Your task to perform on an android device: Turn on the flashlight Image 0: 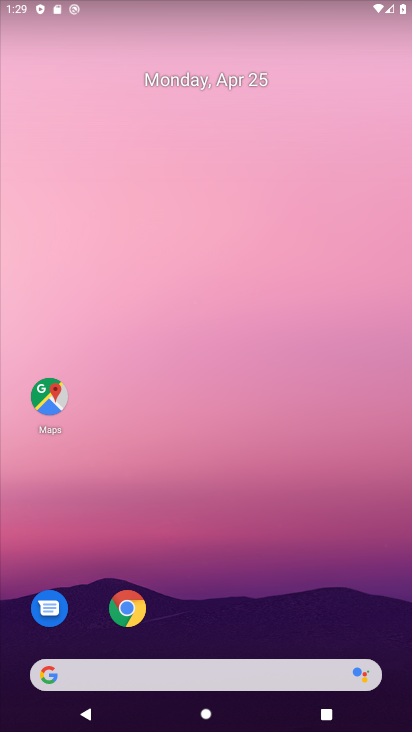
Step 0: drag from (256, 5) to (234, 434)
Your task to perform on an android device: Turn on the flashlight Image 1: 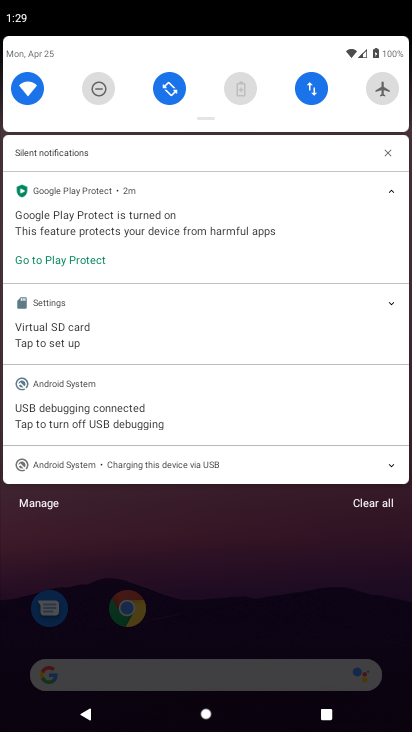
Step 1: drag from (205, 53) to (195, 384)
Your task to perform on an android device: Turn on the flashlight Image 2: 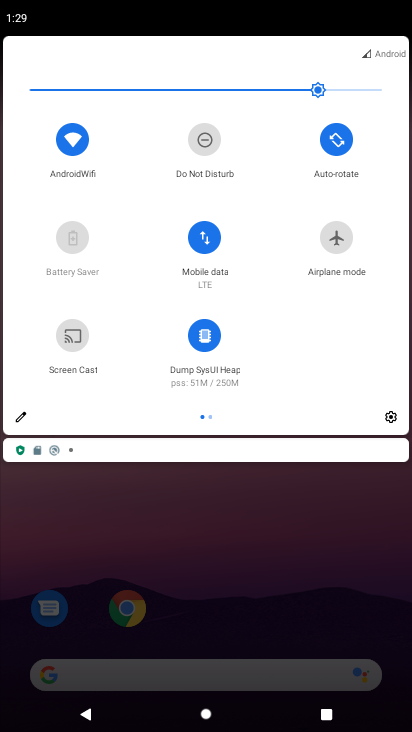
Step 2: click (33, 417)
Your task to perform on an android device: Turn on the flashlight Image 3: 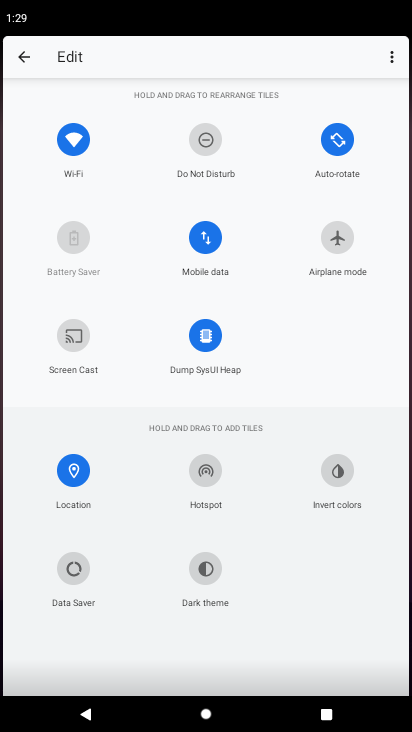
Step 3: task complete